Your task to perform on an android device: Search for coffee table on Crate & Barrel Image 0: 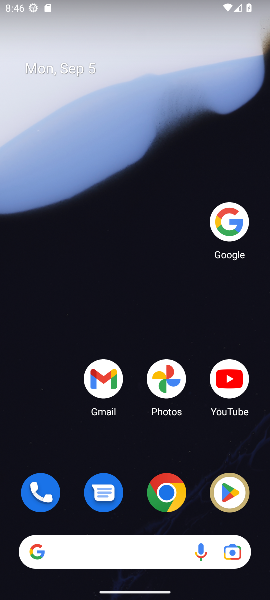
Step 0: click (229, 223)
Your task to perform on an android device: Search for coffee table on Crate & Barrel Image 1: 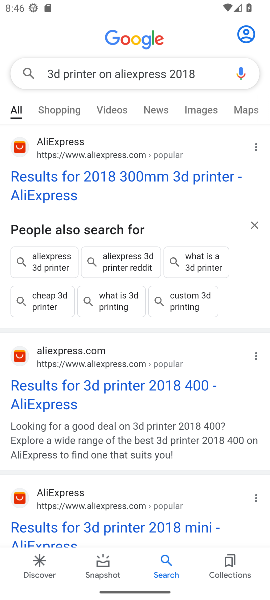
Step 1: click (181, 64)
Your task to perform on an android device: Search for coffee table on Crate & Barrel Image 2: 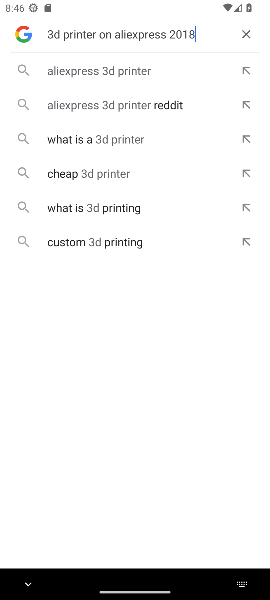
Step 2: click (249, 31)
Your task to perform on an android device: Search for coffee table on Crate & Barrel Image 3: 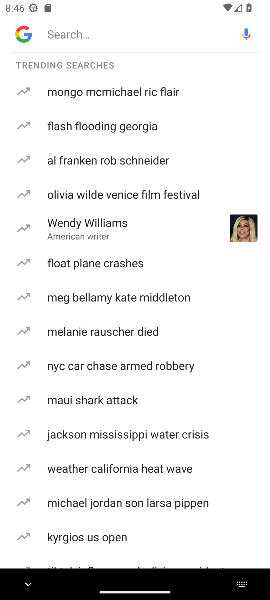
Step 3: click (156, 31)
Your task to perform on an android device: Search for coffee table on Crate & Barrel Image 4: 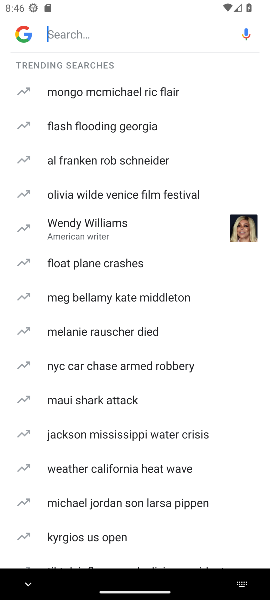
Step 4: type " coffee table on Crate & Barrel "
Your task to perform on an android device: Search for coffee table on Crate & Barrel Image 5: 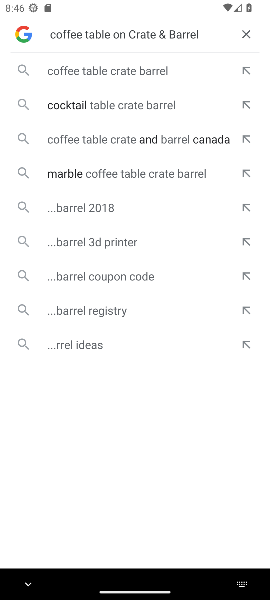
Step 5: click (139, 73)
Your task to perform on an android device: Search for coffee table on Crate & Barrel Image 6: 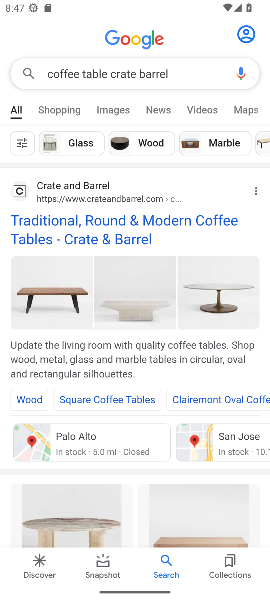
Step 6: click (86, 240)
Your task to perform on an android device: Search for coffee table on Crate & Barrel Image 7: 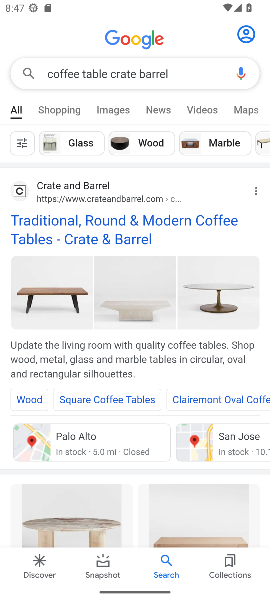
Step 7: click (59, 223)
Your task to perform on an android device: Search for coffee table on Crate & Barrel Image 8: 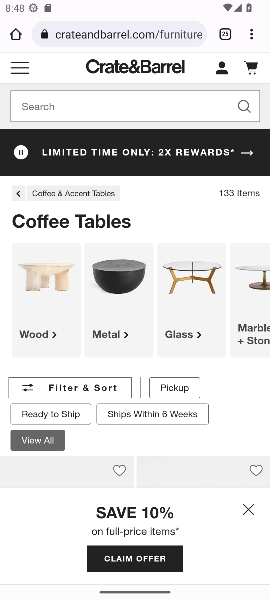
Step 8: click (248, 506)
Your task to perform on an android device: Search for coffee table on Crate & Barrel Image 9: 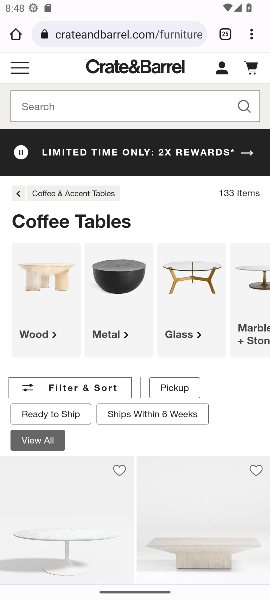
Step 9: task complete